Your task to perform on an android device: Clear the cart on newegg.com. Search for macbook air on newegg.com, select the first entry, add it to the cart, then select checkout. Image 0: 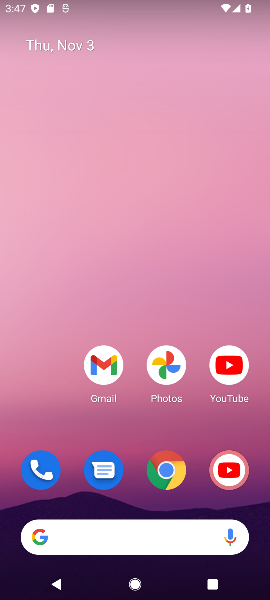
Step 0: click (159, 474)
Your task to perform on an android device: Clear the cart on newegg.com. Search for macbook air on newegg.com, select the first entry, add it to the cart, then select checkout. Image 1: 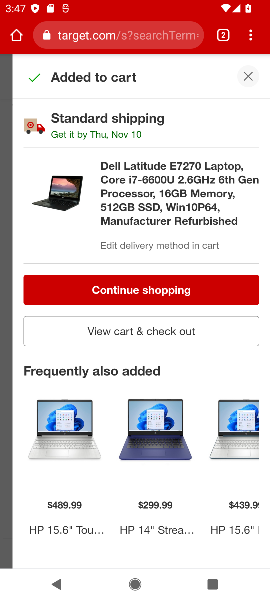
Step 1: click (222, 40)
Your task to perform on an android device: Clear the cart on newegg.com. Search for macbook air on newegg.com, select the first entry, add it to the cart, then select checkout. Image 2: 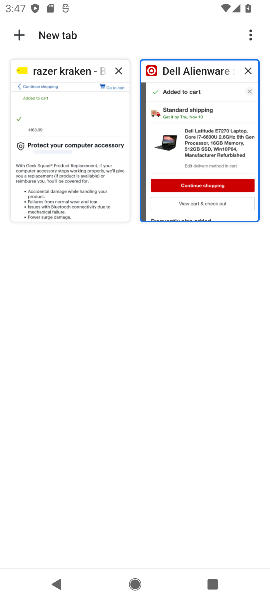
Step 2: click (21, 36)
Your task to perform on an android device: Clear the cart on newegg.com. Search for macbook air on newegg.com, select the first entry, add it to the cart, then select checkout. Image 3: 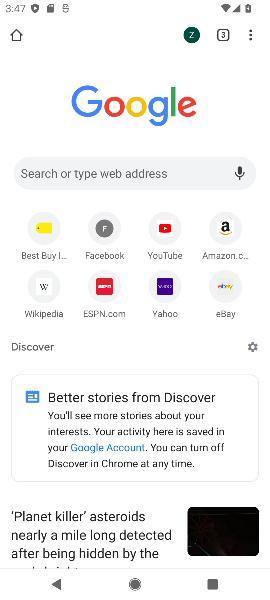
Step 3: click (129, 167)
Your task to perform on an android device: Clear the cart on newegg.com. Search for macbook air on newegg.com, select the first entry, add it to the cart, then select checkout. Image 4: 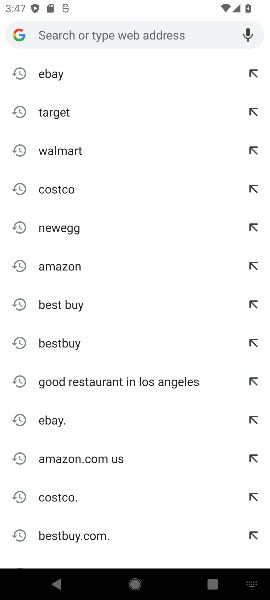
Step 4: click (54, 227)
Your task to perform on an android device: Clear the cart on newegg.com. Search for macbook air on newegg.com, select the first entry, add it to the cart, then select checkout. Image 5: 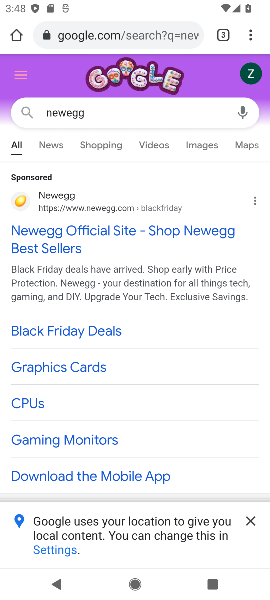
Step 5: click (221, 32)
Your task to perform on an android device: Clear the cart on newegg.com. Search for macbook air on newegg.com, select the first entry, add it to the cart, then select checkout. Image 6: 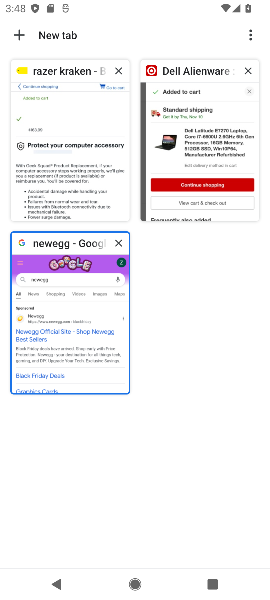
Step 6: click (177, 158)
Your task to perform on an android device: Clear the cart on newegg.com. Search for macbook air on newegg.com, select the first entry, add it to the cart, then select checkout. Image 7: 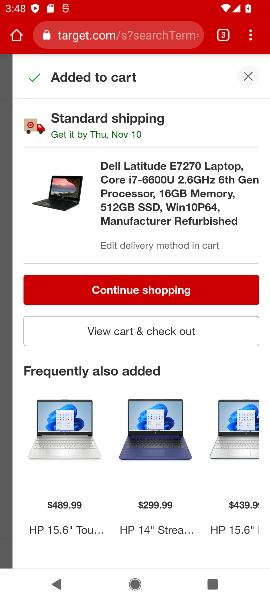
Step 7: click (149, 331)
Your task to perform on an android device: Clear the cart on newegg.com. Search for macbook air on newegg.com, select the first entry, add it to the cart, then select checkout. Image 8: 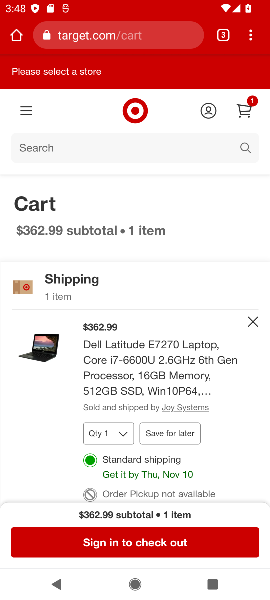
Step 8: click (250, 320)
Your task to perform on an android device: Clear the cart on newegg.com. Search for macbook air on newegg.com, select the first entry, add it to the cart, then select checkout. Image 9: 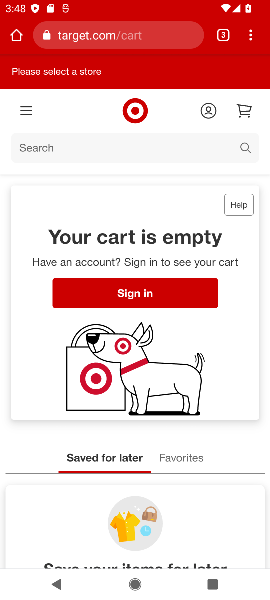
Step 9: click (88, 147)
Your task to perform on an android device: Clear the cart on newegg.com. Search for macbook air on newegg.com, select the first entry, add it to the cart, then select checkout. Image 10: 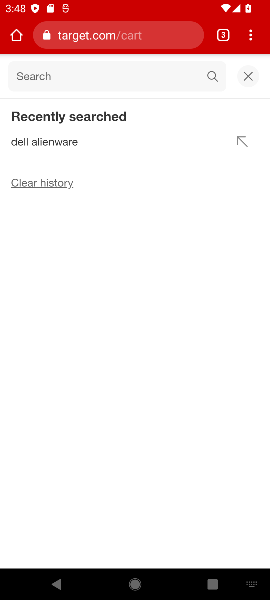
Step 10: type "macbook air"
Your task to perform on an android device: Clear the cart on newegg.com. Search for macbook air on newegg.com, select the first entry, add it to the cart, then select checkout. Image 11: 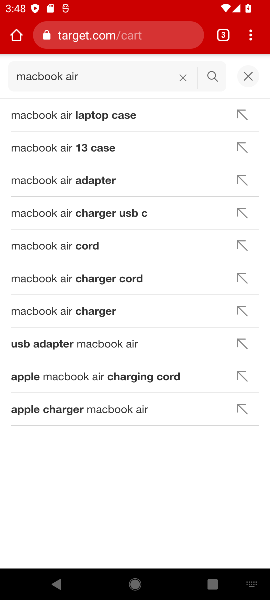
Step 11: click (120, 111)
Your task to perform on an android device: Clear the cart on newegg.com. Search for macbook air on newegg.com, select the first entry, add it to the cart, then select checkout. Image 12: 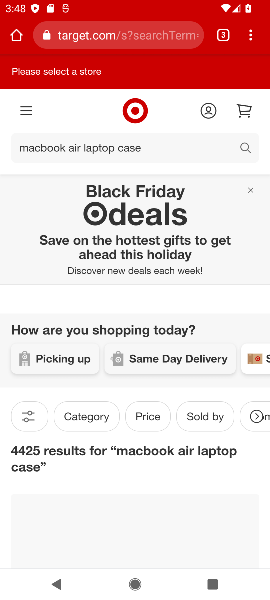
Step 12: drag from (122, 421) to (160, 121)
Your task to perform on an android device: Clear the cart on newegg.com. Search for macbook air on newegg.com, select the first entry, add it to the cart, then select checkout. Image 13: 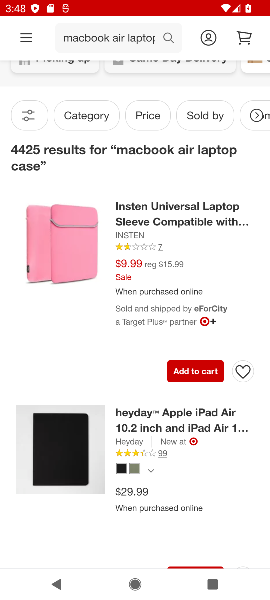
Step 13: drag from (201, 453) to (229, 117)
Your task to perform on an android device: Clear the cart on newegg.com. Search for macbook air on newegg.com, select the first entry, add it to the cart, then select checkout. Image 14: 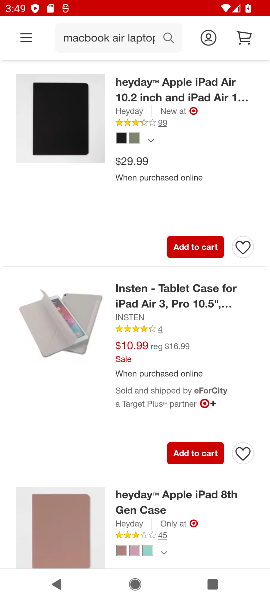
Step 14: drag from (183, 531) to (169, 153)
Your task to perform on an android device: Clear the cart on newegg.com. Search for macbook air on newegg.com, select the first entry, add it to the cart, then select checkout. Image 15: 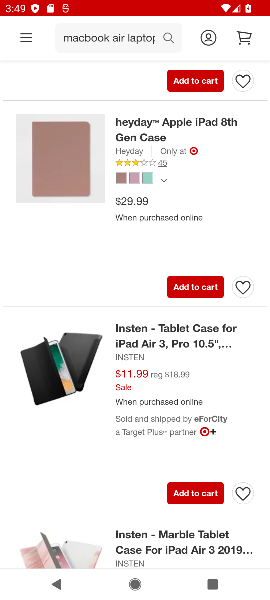
Step 15: click (195, 280)
Your task to perform on an android device: Clear the cart on newegg.com. Search for macbook air on newegg.com, select the first entry, add it to the cart, then select checkout. Image 16: 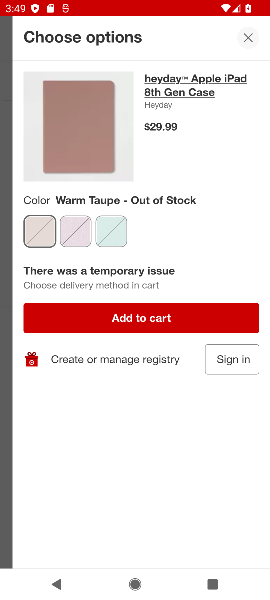
Step 16: task complete